Your task to perform on an android device: toggle javascript in the chrome app Image 0: 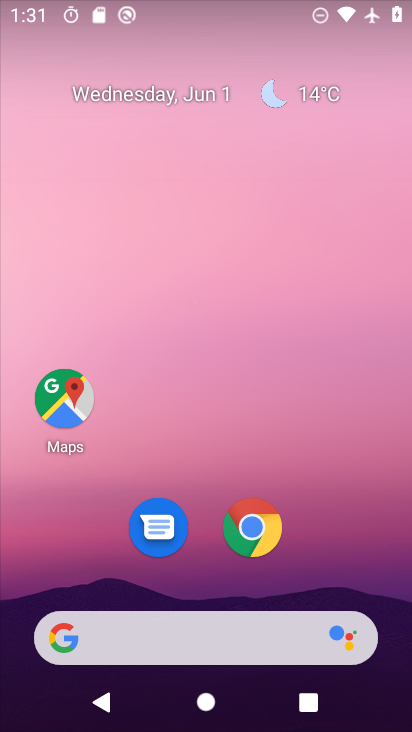
Step 0: click (267, 546)
Your task to perform on an android device: toggle javascript in the chrome app Image 1: 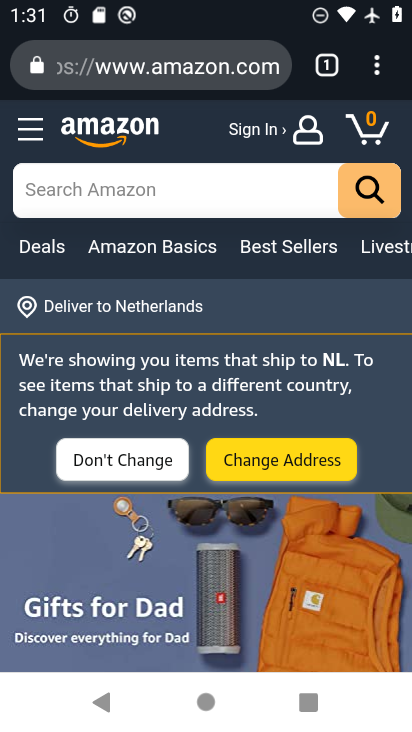
Step 1: click (388, 74)
Your task to perform on an android device: toggle javascript in the chrome app Image 2: 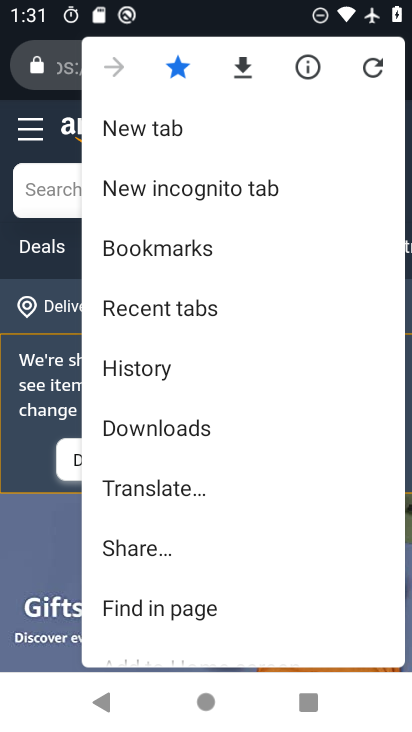
Step 2: drag from (166, 500) to (214, 331)
Your task to perform on an android device: toggle javascript in the chrome app Image 3: 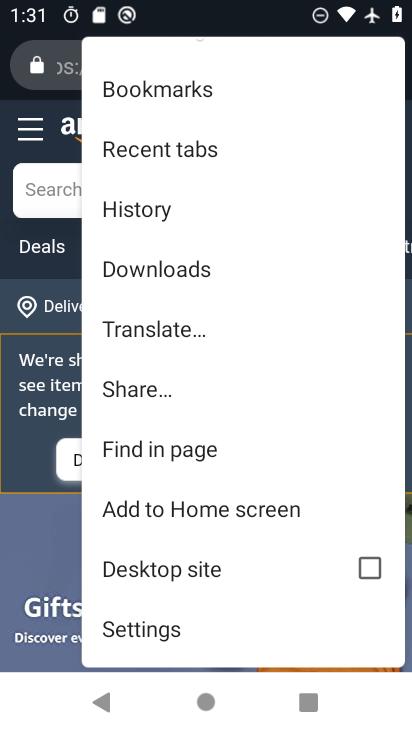
Step 3: click (175, 627)
Your task to perform on an android device: toggle javascript in the chrome app Image 4: 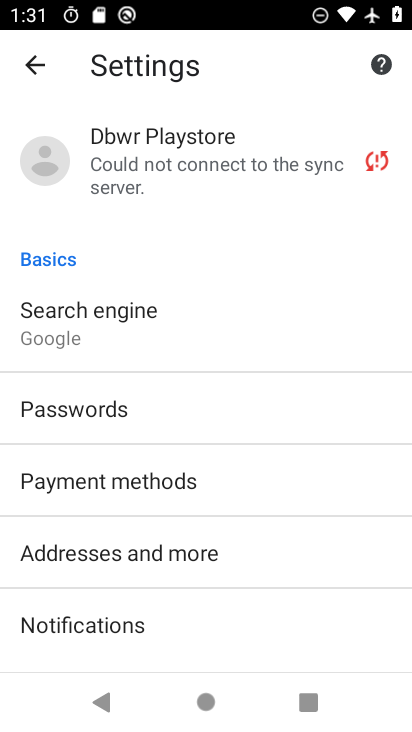
Step 4: drag from (176, 607) to (218, 366)
Your task to perform on an android device: toggle javascript in the chrome app Image 5: 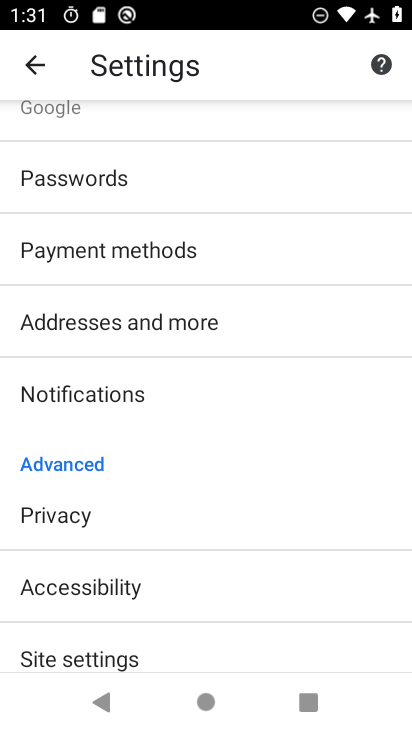
Step 5: click (92, 659)
Your task to perform on an android device: toggle javascript in the chrome app Image 6: 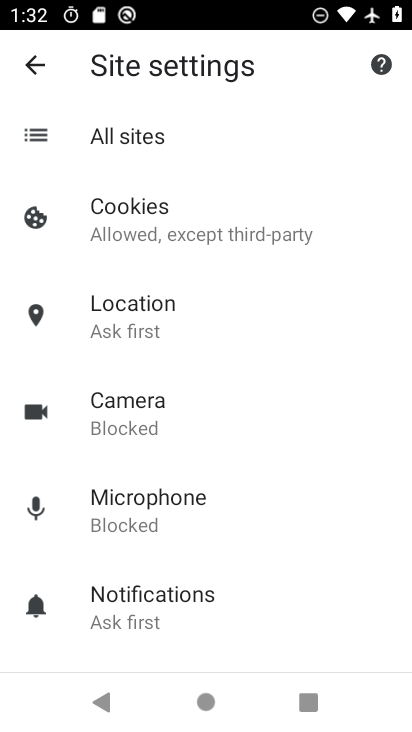
Step 6: drag from (167, 537) to (200, 369)
Your task to perform on an android device: toggle javascript in the chrome app Image 7: 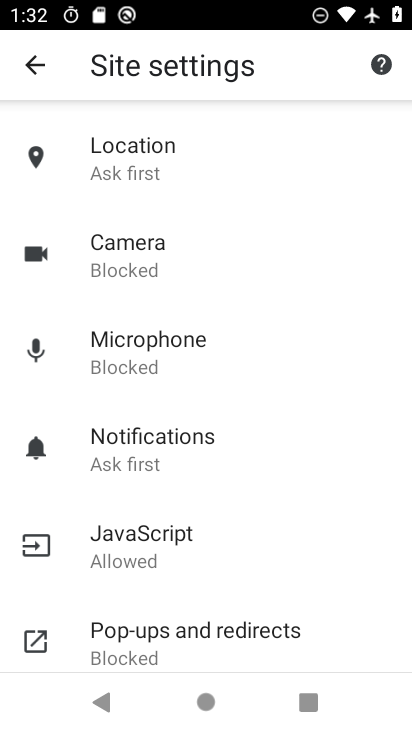
Step 7: click (170, 547)
Your task to perform on an android device: toggle javascript in the chrome app Image 8: 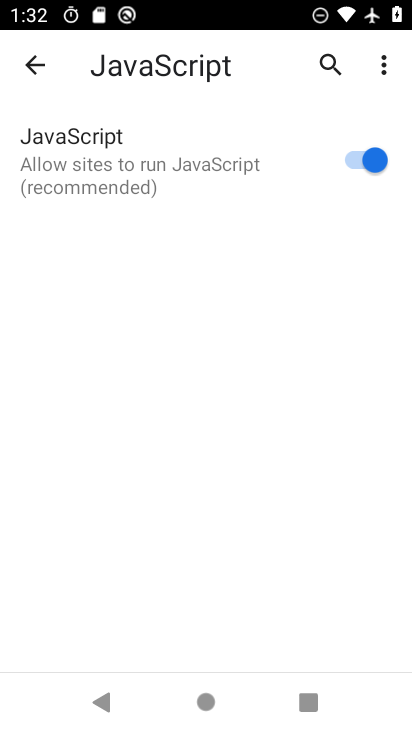
Step 8: click (328, 166)
Your task to perform on an android device: toggle javascript in the chrome app Image 9: 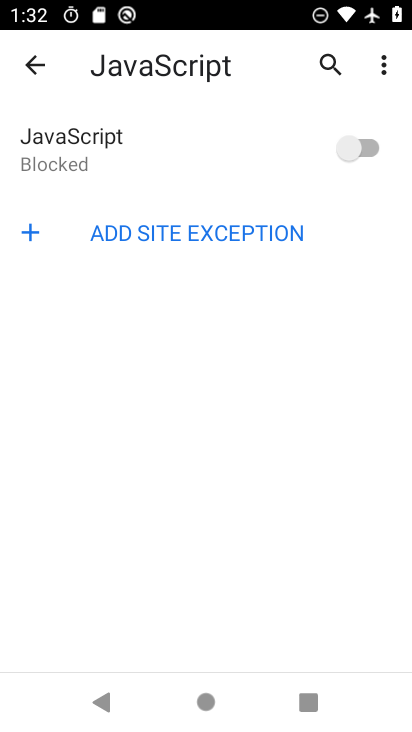
Step 9: task complete